Your task to perform on an android device: Go to CNN.com Image 0: 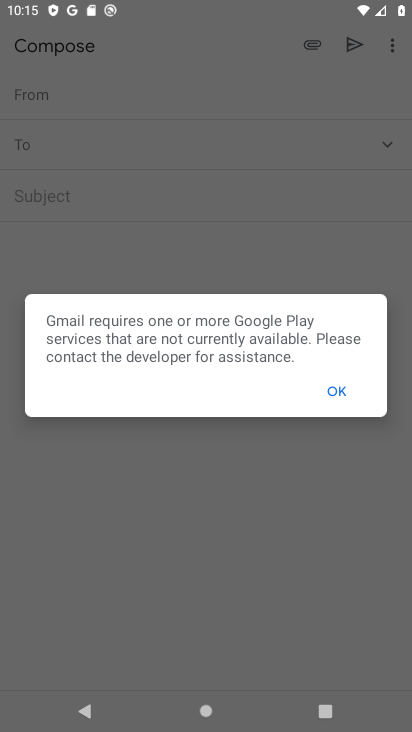
Step 0: drag from (274, 696) to (220, 293)
Your task to perform on an android device: Go to CNN.com Image 1: 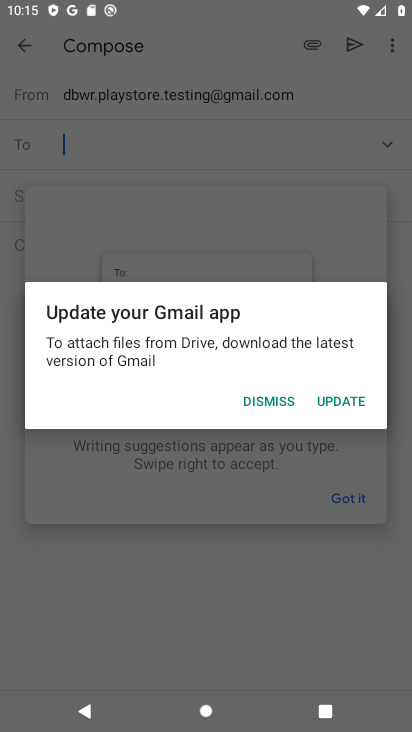
Step 1: click (348, 481)
Your task to perform on an android device: Go to CNN.com Image 2: 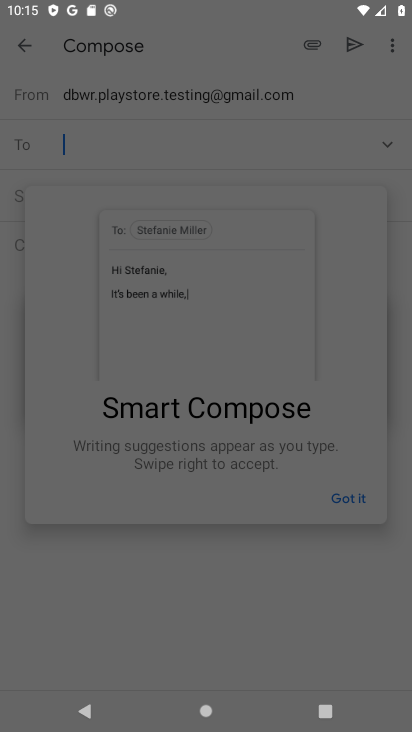
Step 2: press back button
Your task to perform on an android device: Go to CNN.com Image 3: 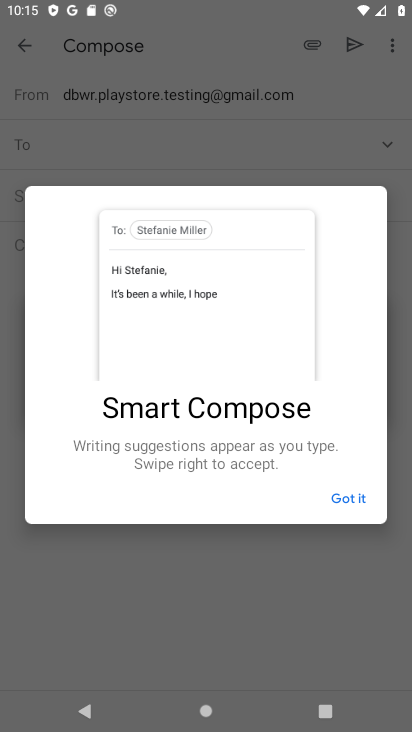
Step 3: press back button
Your task to perform on an android device: Go to CNN.com Image 4: 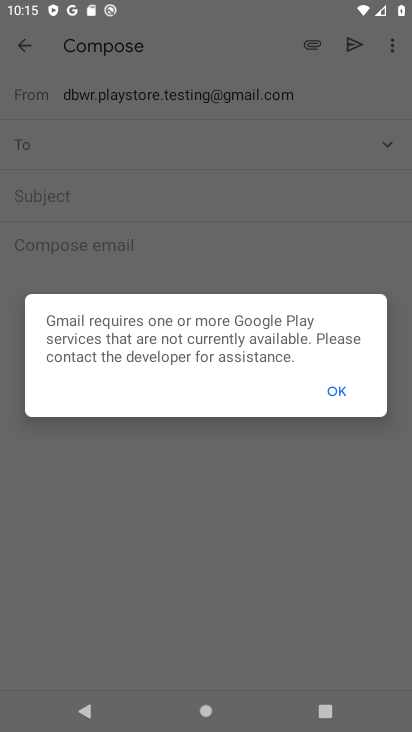
Step 4: click (329, 411)
Your task to perform on an android device: Go to CNN.com Image 5: 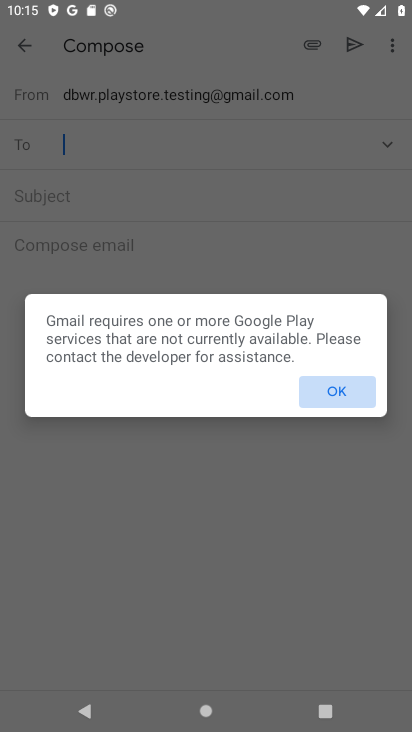
Step 5: click (338, 370)
Your task to perform on an android device: Go to CNN.com Image 6: 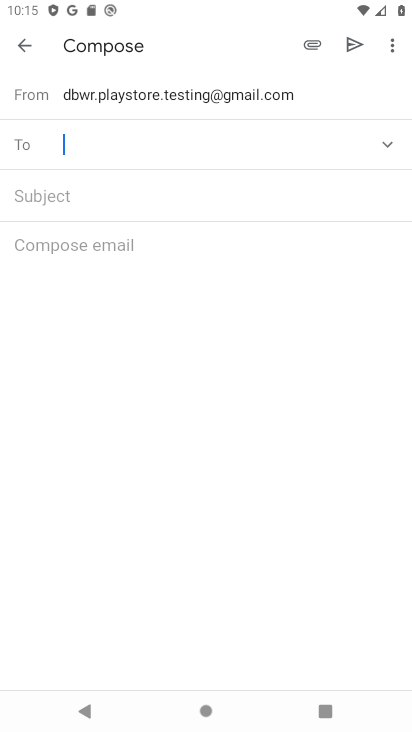
Step 6: click (343, 384)
Your task to perform on an android device: Go to CNN.com Image 7: 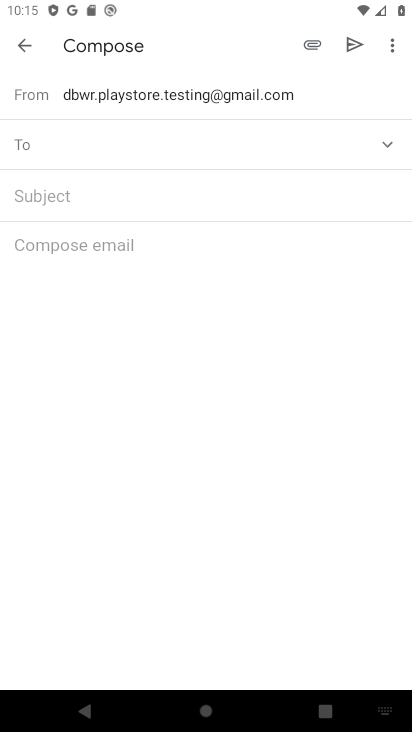
Step 7: click (34, 40)
Your task to perform on an android device: Go to CNN.com Image 8: 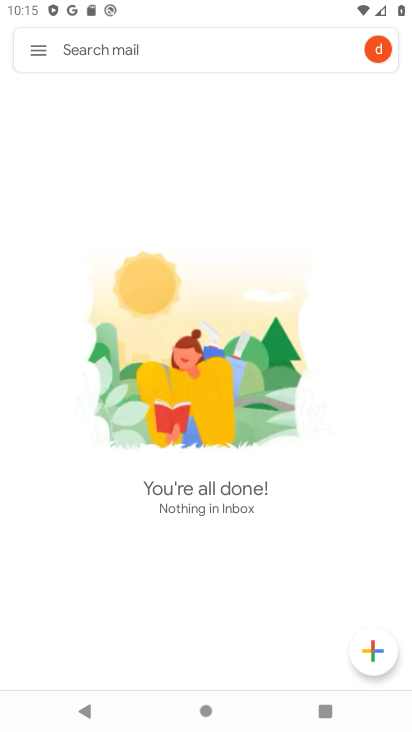
Step 8: press back button
Your task to perform on an android device: Go to CNN.com Image 9: 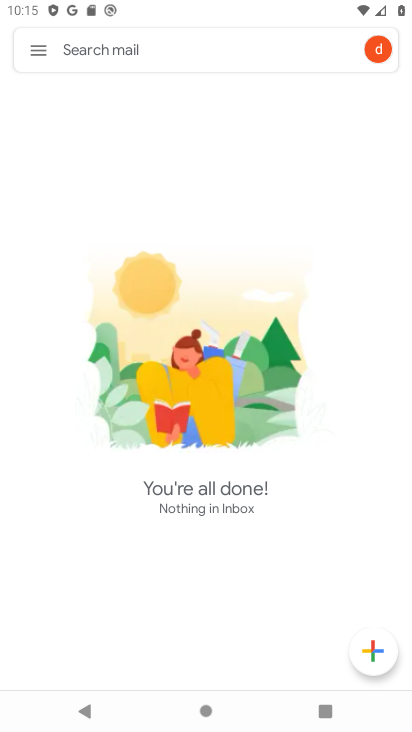
Step 9: press back button
Your task to perform on an android device: Go to CNN.com Image 10: 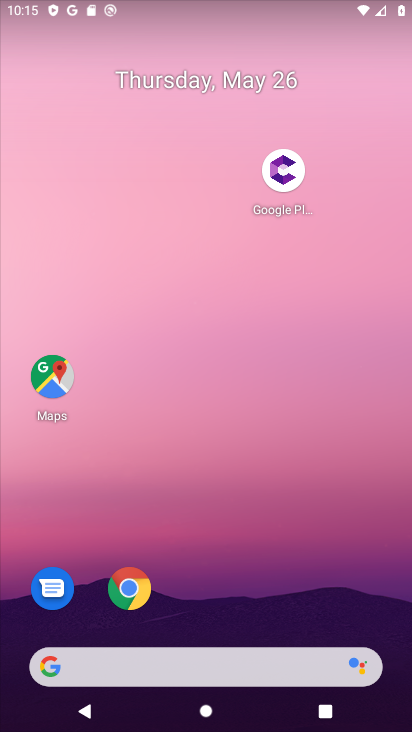
Step 10: press back button
Your task to perform on an android device: Go to CNN.com Image 11: 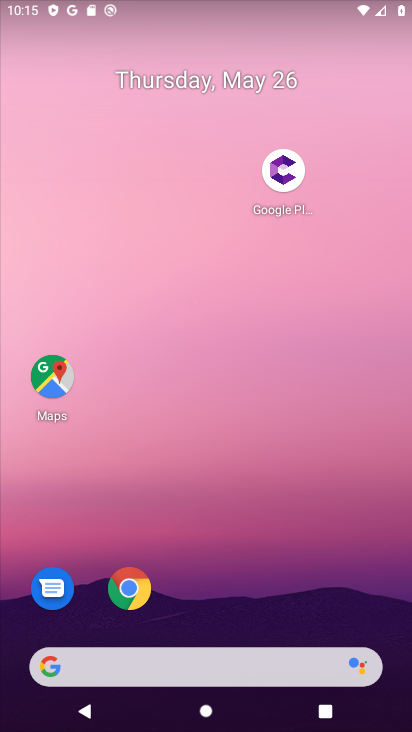
Step 11: drag from (305, 677) to (251, 196)
Your task to perform on an android device: Go to CNN.com Image 12: 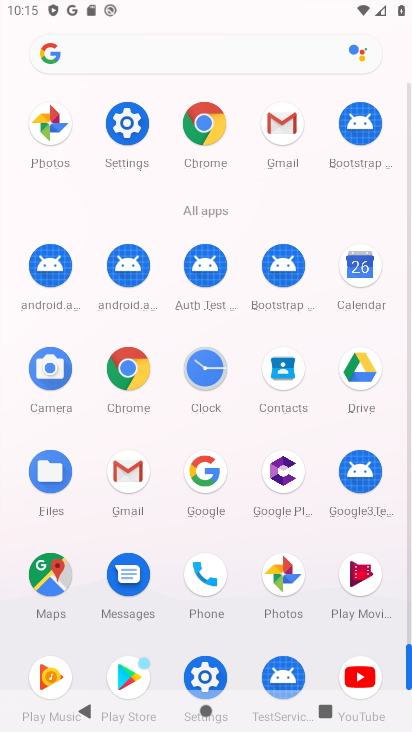
Step 12: click (201, 126)
Your task to perform on an android device: Go to CNN.com Image 13: 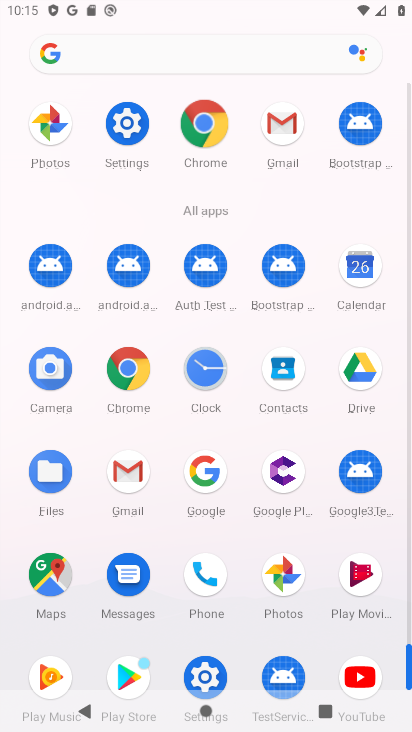
Step 13: click (203, 132)
Your task to perform on an android device: Go to CNN.com Image 14: 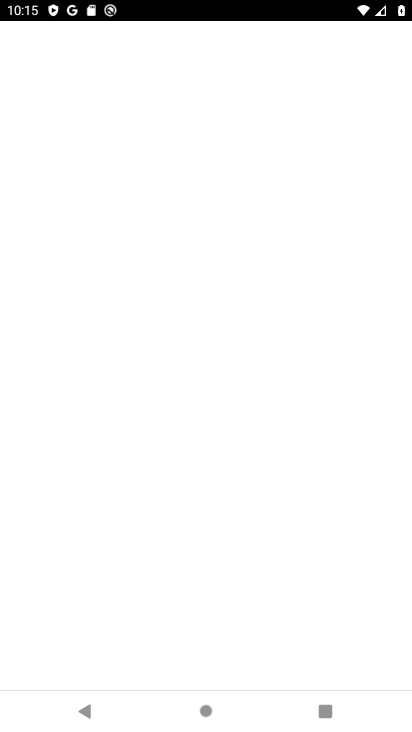
Step 14: click (200, 139)
Your task to perform on an android device: Go to CNN.com Image 15: 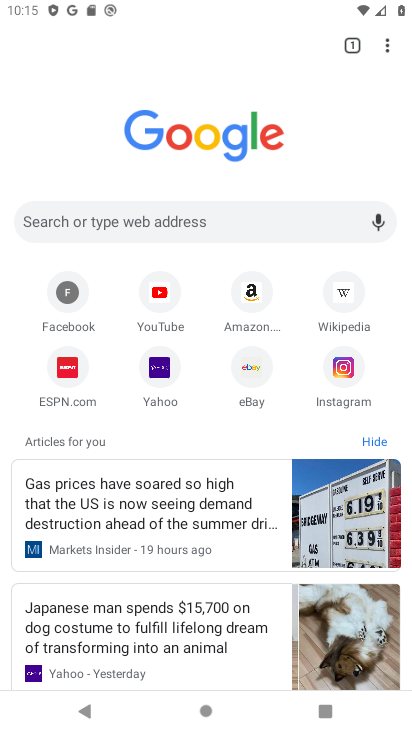
Step 15: click (65, 215)
Your task to perform on an android device: Go to CNN.com Image 16: 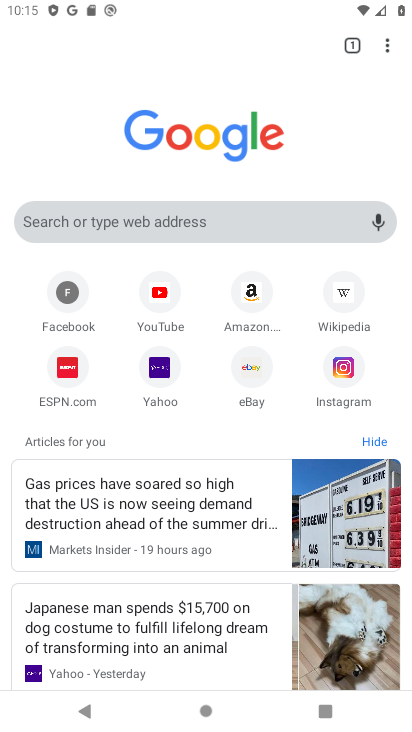
Step 16: click (65, 215)
Your task to perform on an android device: Go to CNN.com Image 17: 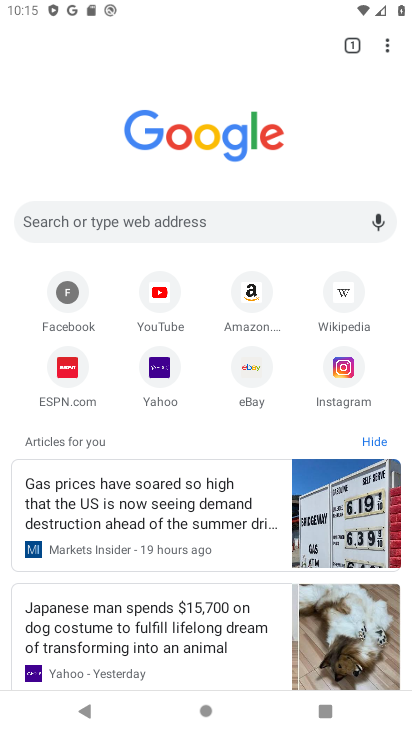
Step 17: click (37, 215)
Your task to perform on an android device: Go to CNN.com Image 18: 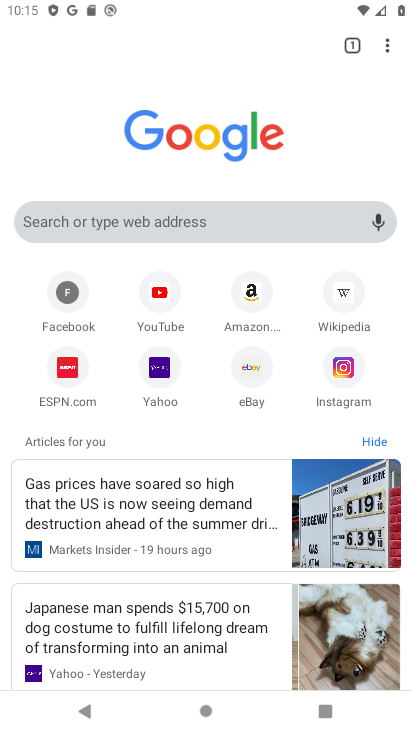
Step 18: click (38, 215)
Your task to perform on an android device: Go to CNN.com Image 19: 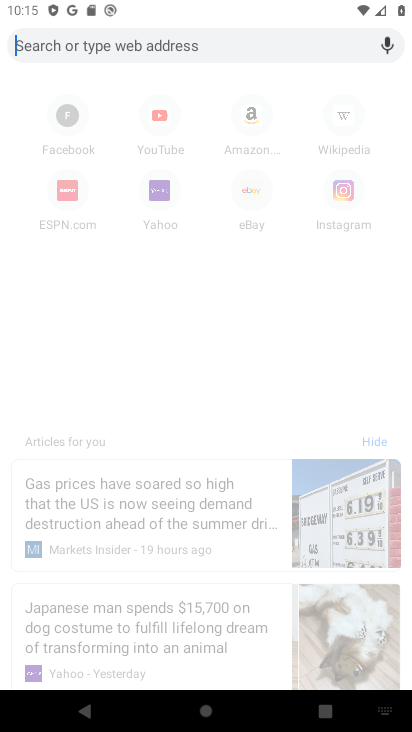
Step 19: click (39, 215)
Your task to perform on an android device: Go to CNN.com Image 20: 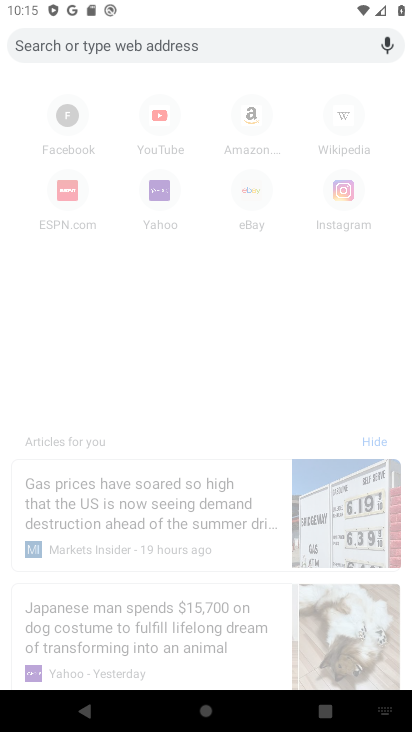
Step 20: type "cnn.com"
Your task to perform on an android device: Go to CNN.com Image 21: 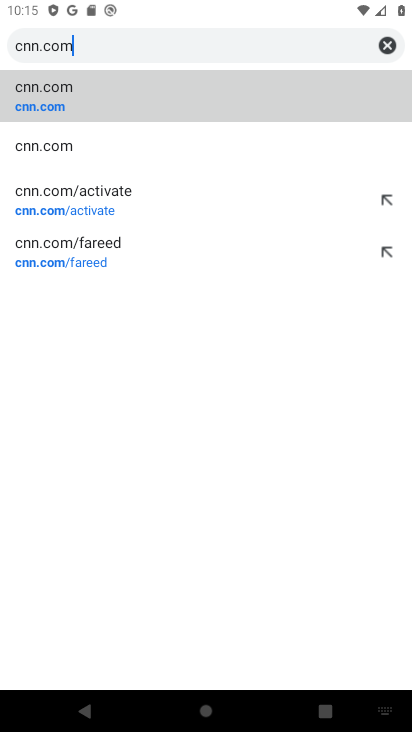
Step 21: click (19, 96)
Your task to perform on an android device: Go to CNN.com Image 22: 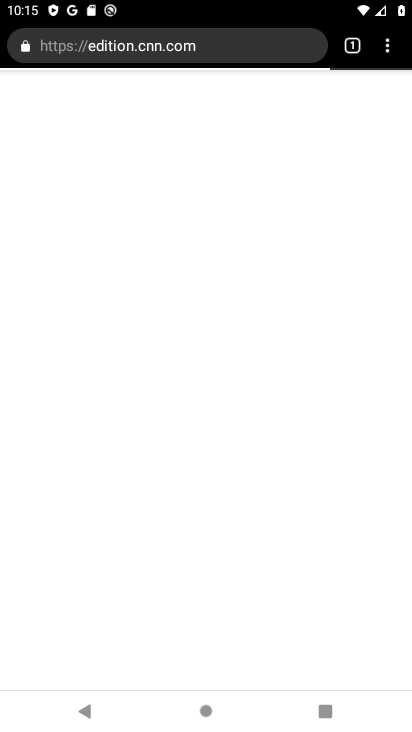
Step 22: task complete